Your task to perform on an android device: Show me the alarms in the clock app Image 0: 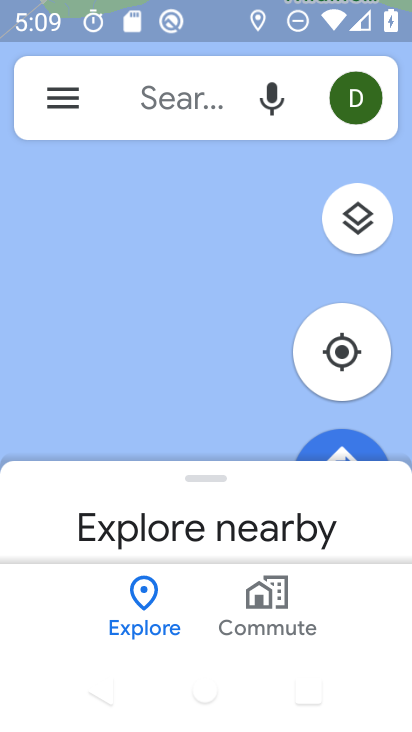
Step 0: press home button
Your task to perform on an android device: Show me the alarms in the clock app Image 1: 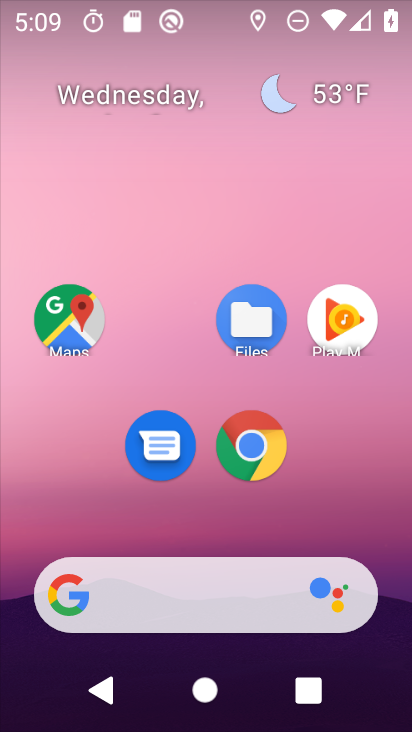
Step 1: press home button
Your task to perform on an android device: Show me the alarms in the clock app Image 2: 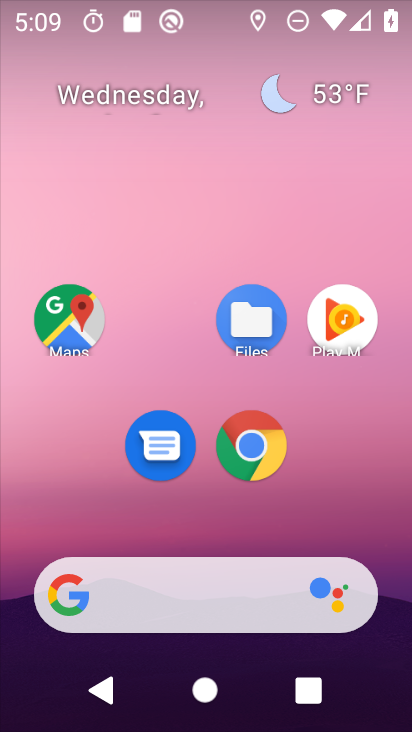
Step 2: drag from (362, 544) to (334, 235)
Your task to perform on an android device: Show me the alarms in the clock app Image 3: 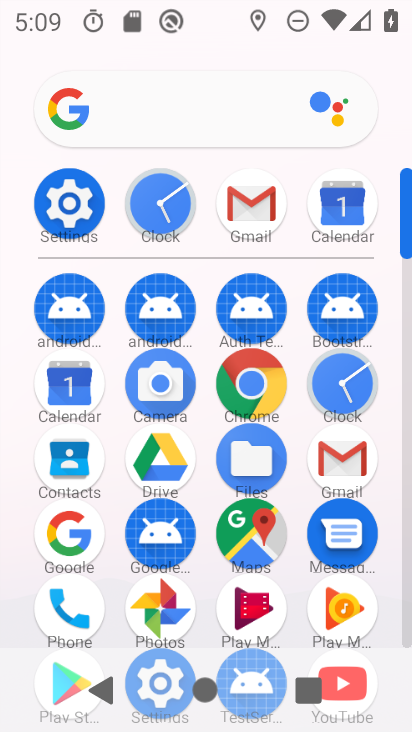
Step 3: click (155, 217)
Your task to perform on an android device: Show me the alarms in the clock app Image 4: 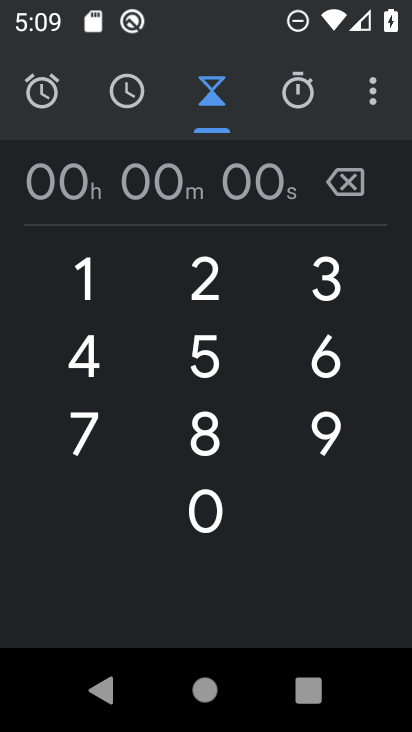
Step 4: click (14, 92)
Your task to perform on an android device: Show me the alarms in the clock app Image 5: 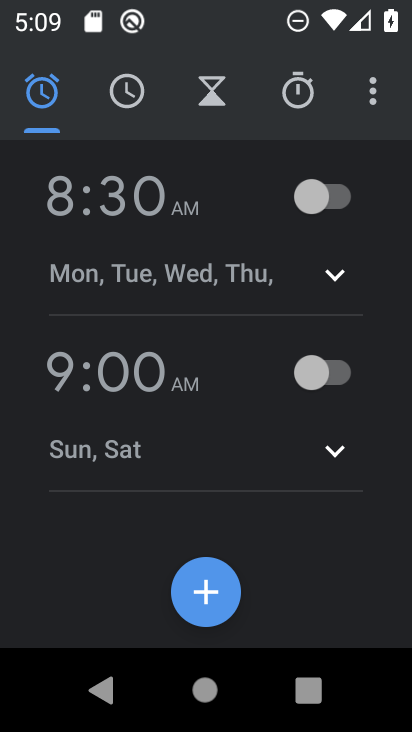
Step 5: task complete